Your task to perform on an android device: Search for pizza restaurants on Maps Image 0: 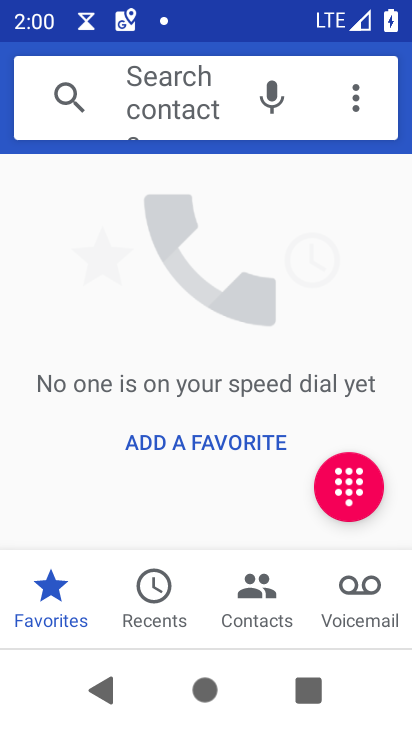
Step 0: press home button
Your task to perform on an android device: Search for pizza restaurants on Maps Image 1: 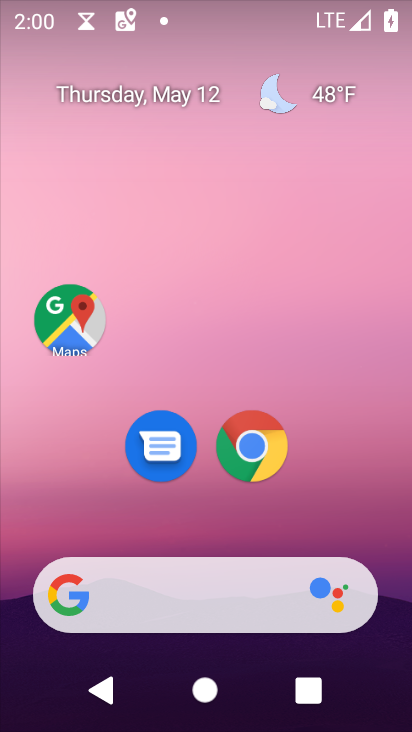
Step 1: click (69, 318)
Your task to perform on an android device: Search for pizza restaurants on Maps Image 2: 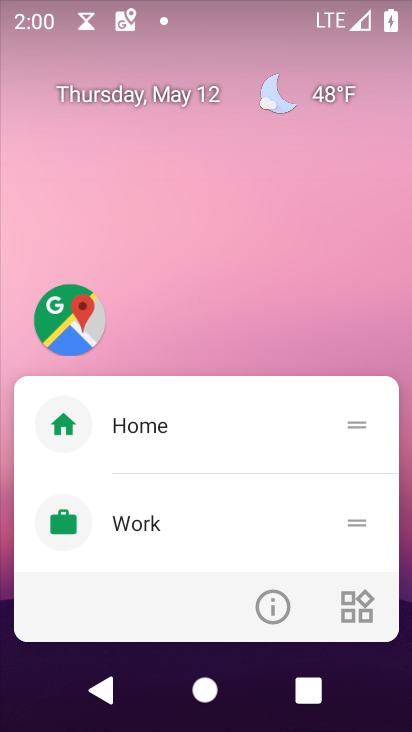
Step 2: click (69, 306)
Your task to perform on an android device: Search for pizza restaurants on Maps Image 3: 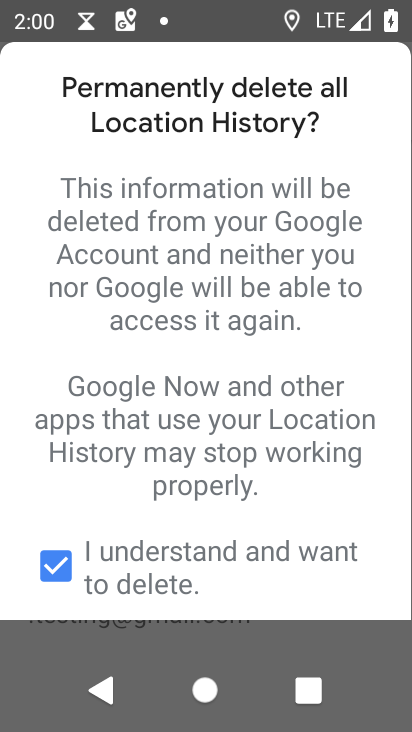
Step 3: press back button
Your task to perform on an android device: Search for pizza restaurants on Maps Image 4: 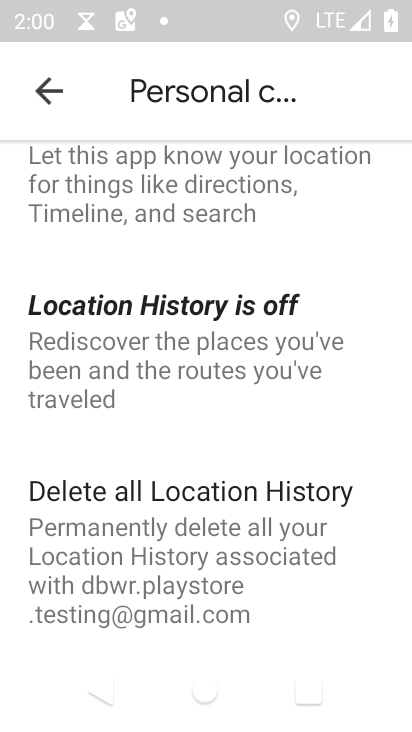
Step 4: press back button
Your task to perform on an android device: Search for pizza restaurants on Maps Image 5: 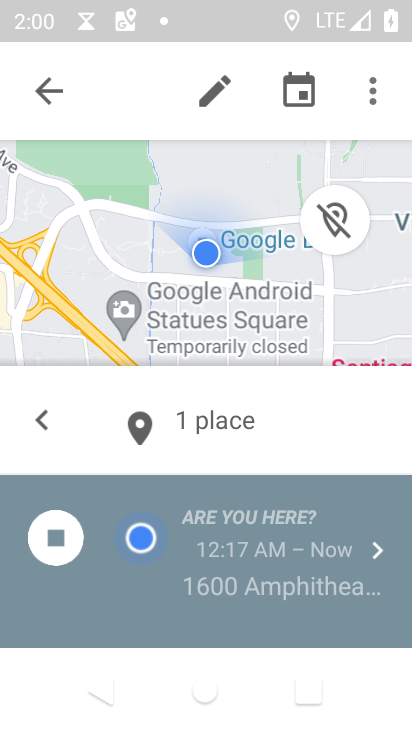
Step 5: press back button
Your task to perform on an android device: Search for pizza restaurants on Maps Image 6: 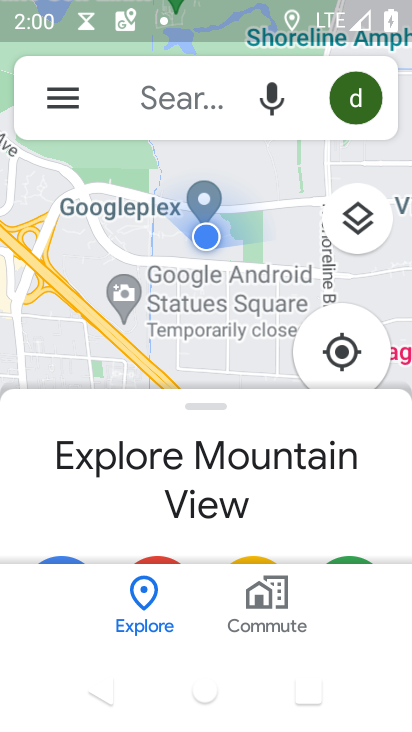
Step 6: click (156, 94)
Your task to perform on an android device: Search for pizza restaurants on Maps Image 7: 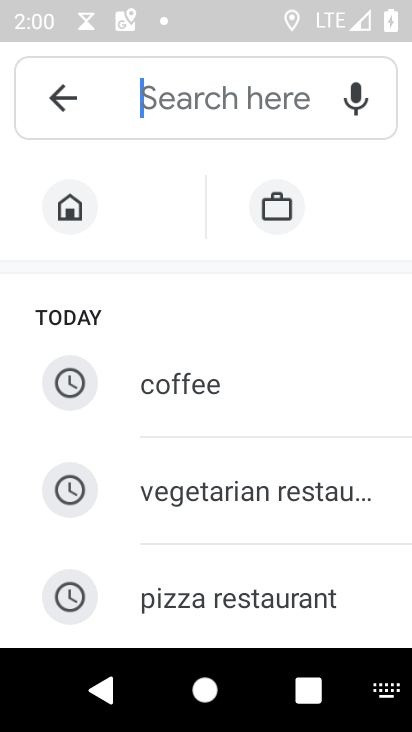
Step 7: click (280, 582)
Your task to perform on an android device: Search for pizza restaurants on Maps Image 8: 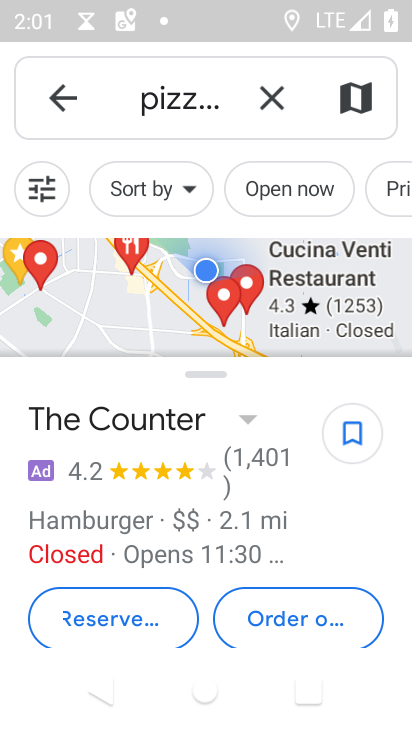
Step 8: task complete